Your task to perform on an android device: turn pop-ups on in chrome Image 0: 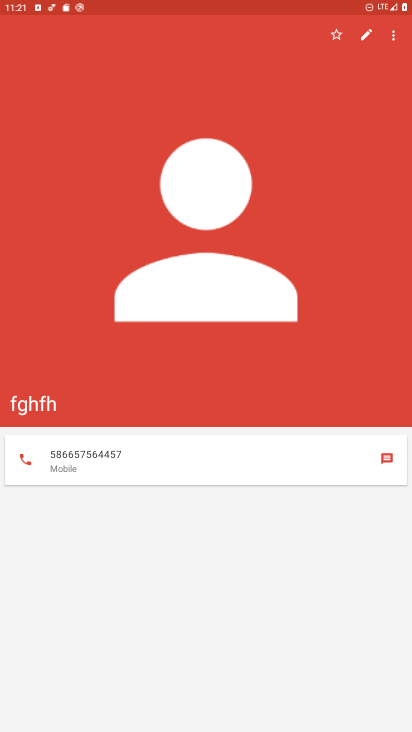
Step 0: press home button
Your task to perform on an android device: turn pop-ups on in chrome Image 1: 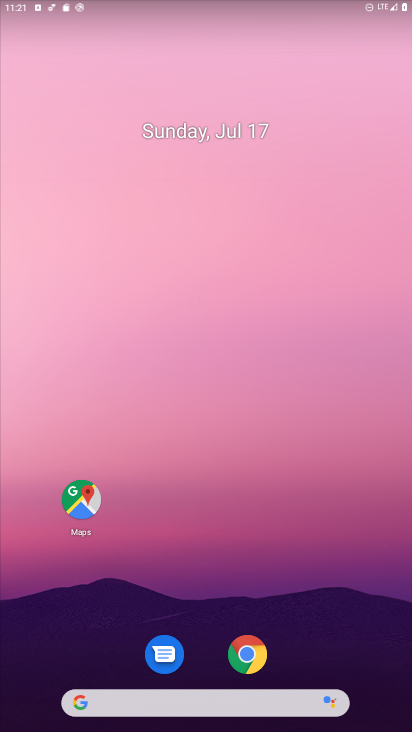
Step 1: click (252, 656)
Your task to perform on an android device: turn pop-ups on in chrome Image 2: 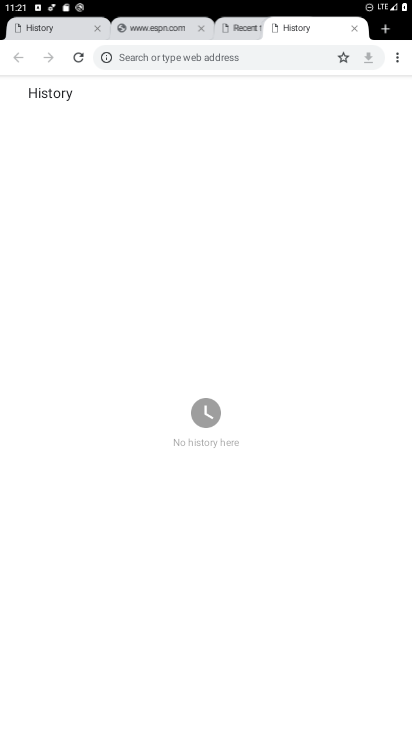
Step 2: click (395, 57)
Your task to perform on an android device: turn pop-ups on in chrome Image 3: 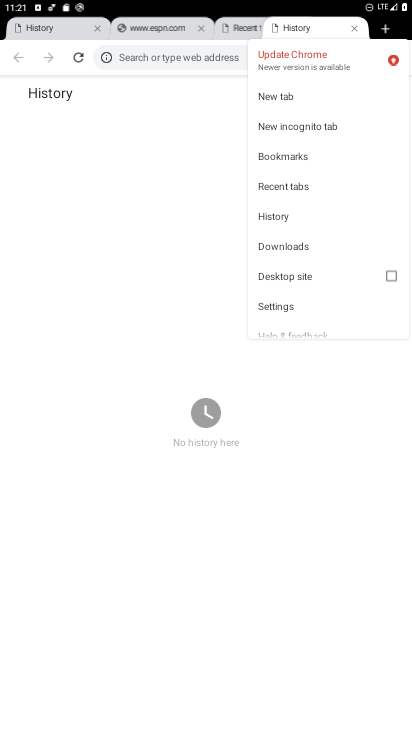
Step 3: click (286, 302)
Your task to perform on an android device: turn pop-ups on in chrome Image 4: 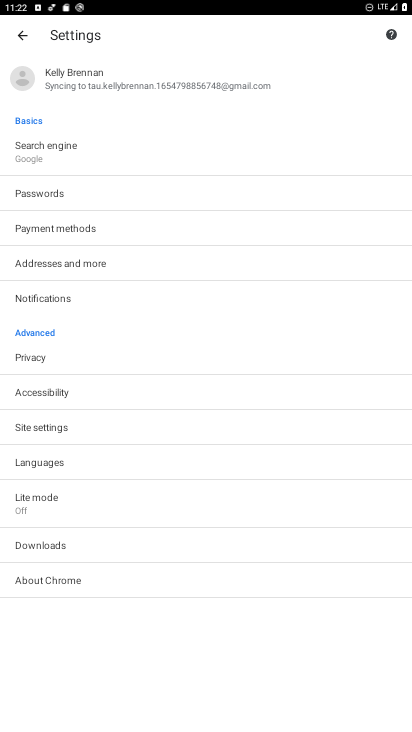
Step 4: click (80, 430)
Your task to perform on an android device: turn pop-ups on in chrome Image 5: 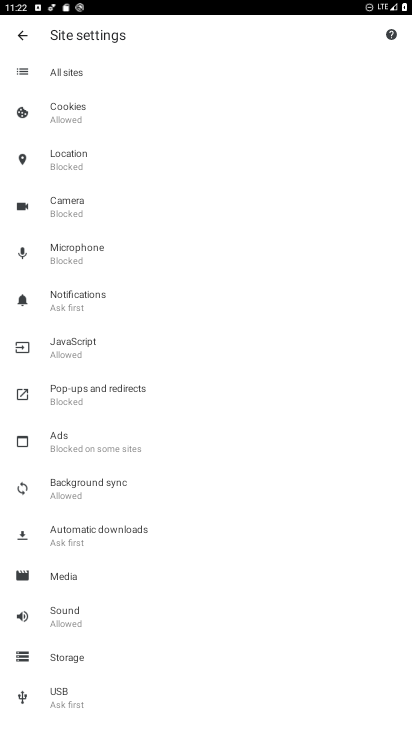
Step 5: click (125, 400)
Your task to perform on an android device: turn pop-ups on in chrome Image 6: 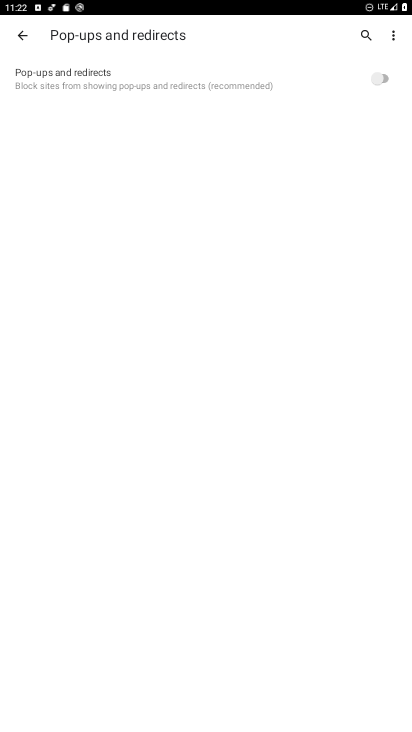
Step 6: click (381, 78)
Your task to perform on an android device: turn pop-ups on in chrome Image 7: 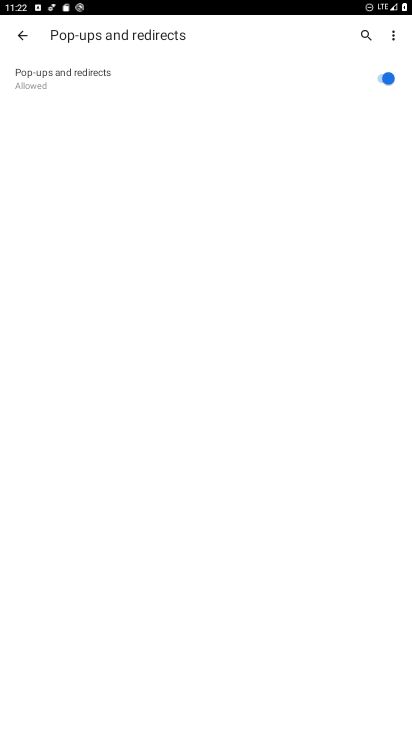
Step 7: task complete